Your task to perform on an android device: Go to Google Image 0: 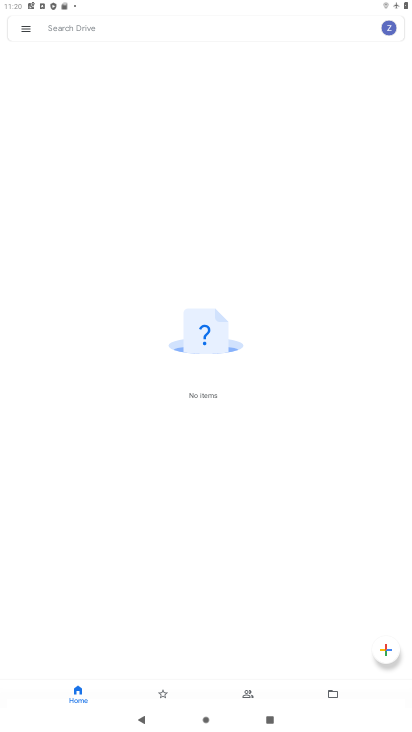
Step 0: press home button
Your task to perform on an android device: Go to Google Image 1: 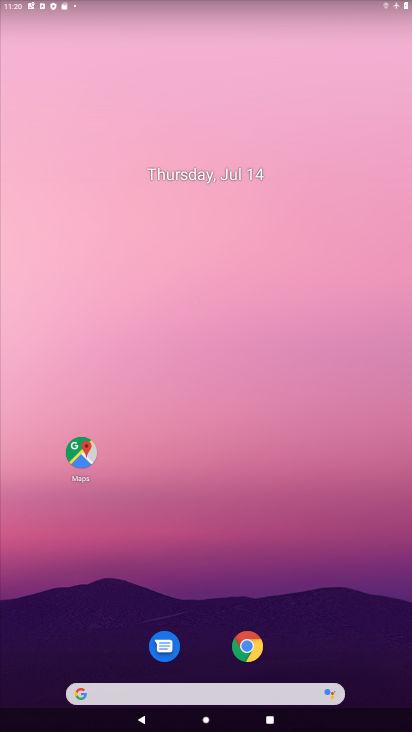
Step 1: click (254, 650)
Your task to perform on an android device: Go to Google Image 2: 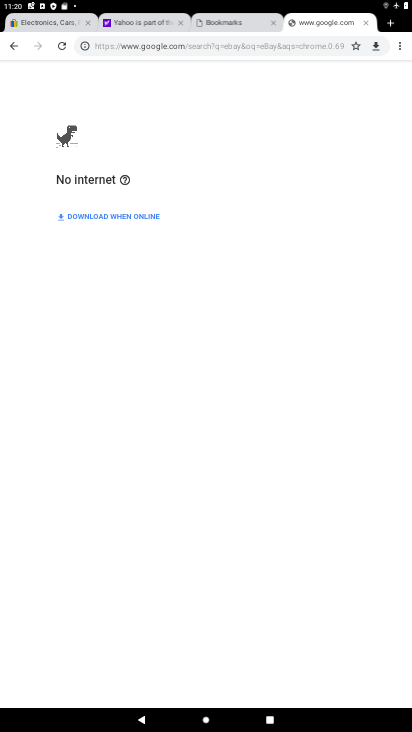
Step 2: task complete